Your task to perform on an android device: Go to Wikipedia Image 0: 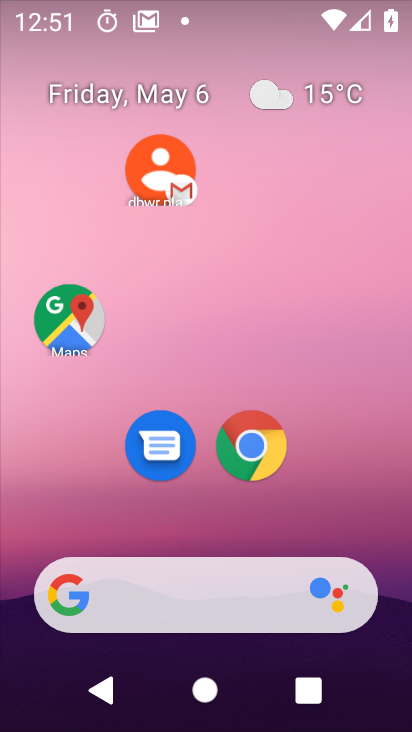
Step 0: drag from (289, 493) to (101, 120)
Your task to perform on an android device: Go to Wikipedia Image 1: 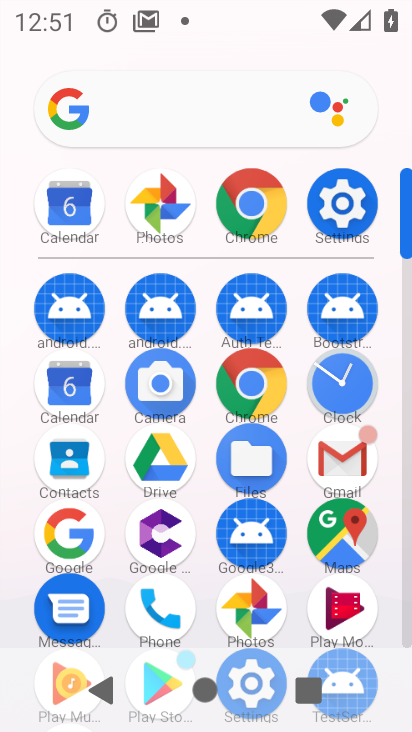
Step 1: click (252, 185)
Your task to perform on an android device: Go to Wikipedia Image 2: 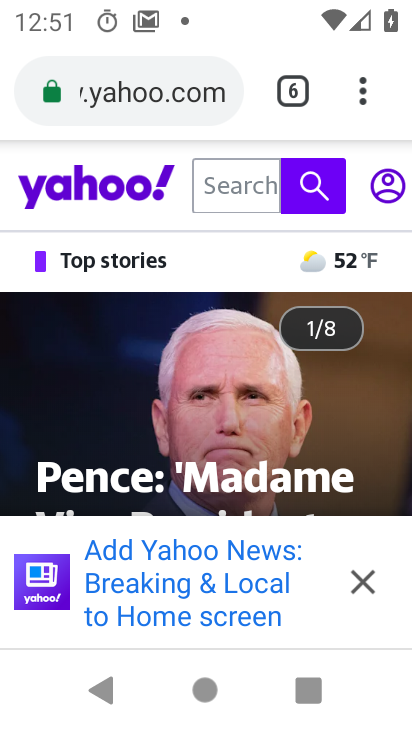
Step 2: click (360, 84)
Your task to perform on an android device: Go to Wikipedia Image 3: 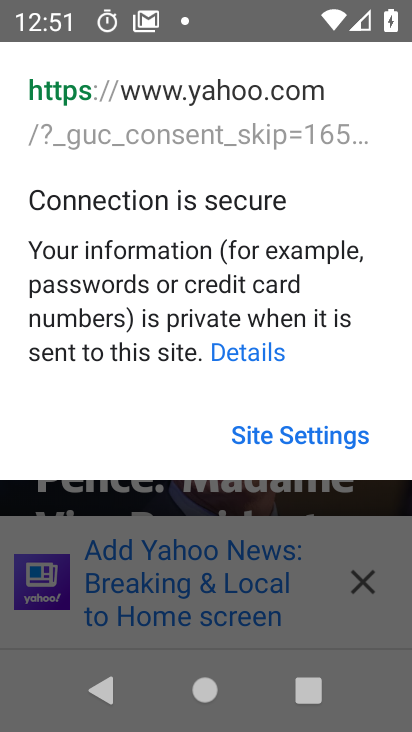
Step 3: click (361, 83)
Your task to perform on an android device: Go to Wikipedia Image 4: 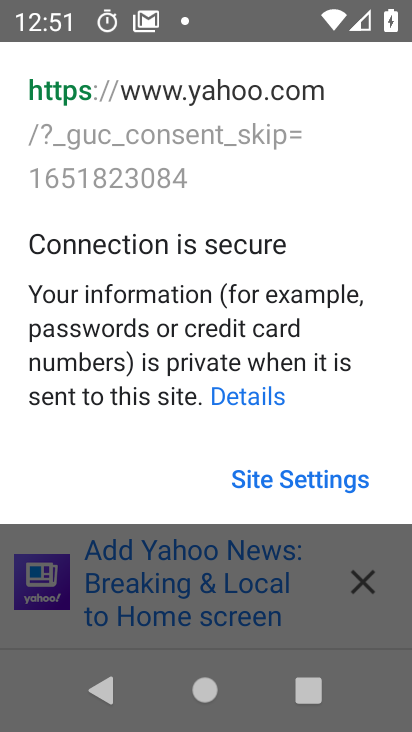
Step 4: click (298, 467)
Your task to perform on an android device: Go to Wikipedia Image 5: 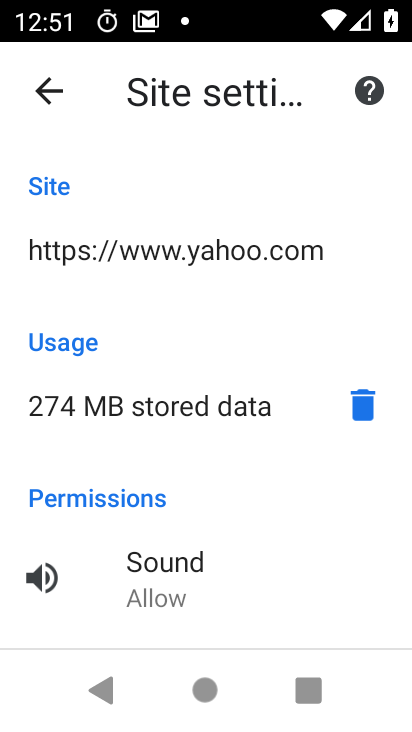
Step 5: click (54, 82)
Your task to perform on an android device: Go to Wikipedia Image 6: 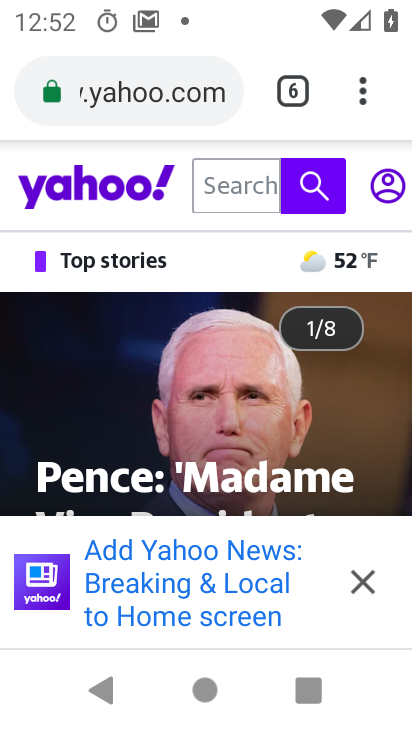
Step 6: drag from (367, 92) to (112, 190)
Your task to perform on an android device: Go to Wikipedia Image 7: 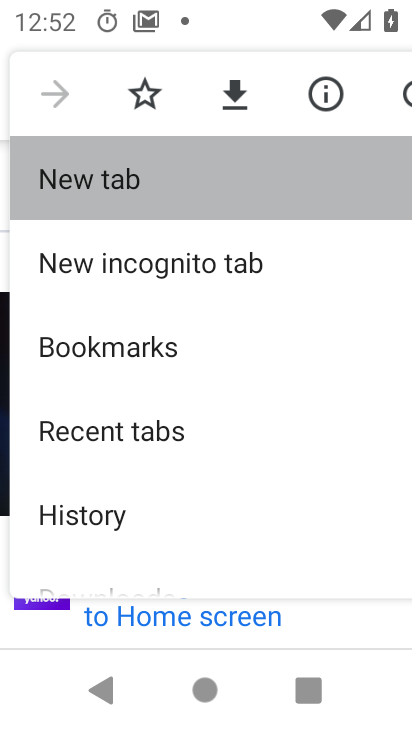
Step 7: click (112, 190)
Your task to perform on an android device: Go to Wikipedia Image 8: 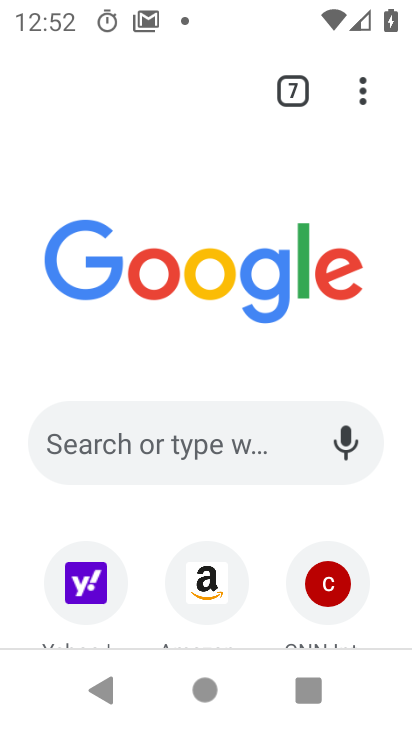
Step 8: drag from (252, 587) to (133, 81)
Your task to perform on an android device: Go to Wikipedia Image 9: 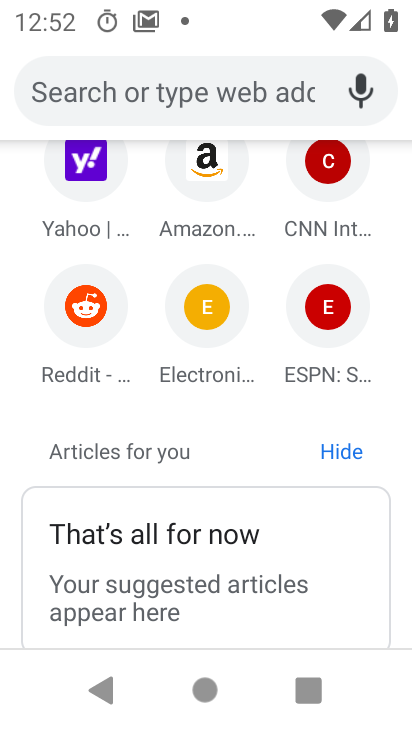
Step 9: drag from (224, 501) to (192, 31)
Your task to perform on an android device: Go to Wikipedia Image 10: 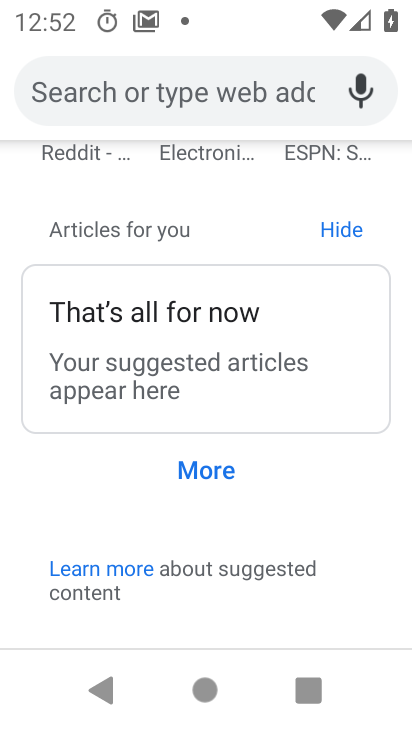
Step 10: drag from (185, 230) to (225, 443)
Your task to perform on an android device: Go to Wikipedia Image 11: 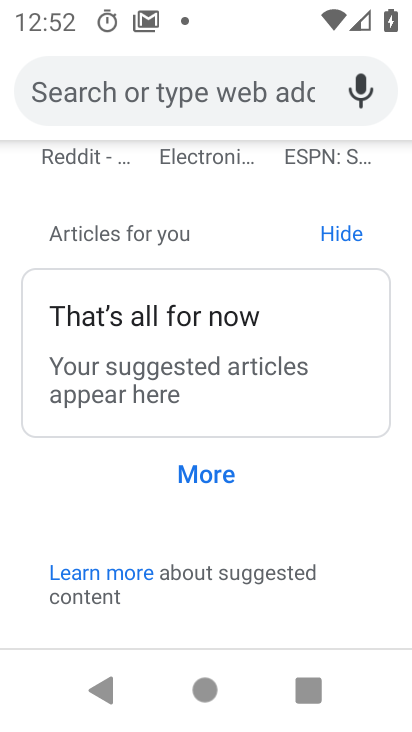
Step 11: drag from (220, 414) to (243, 491)
Your task to perform on an android device: Go to Wikipedia Image 12: 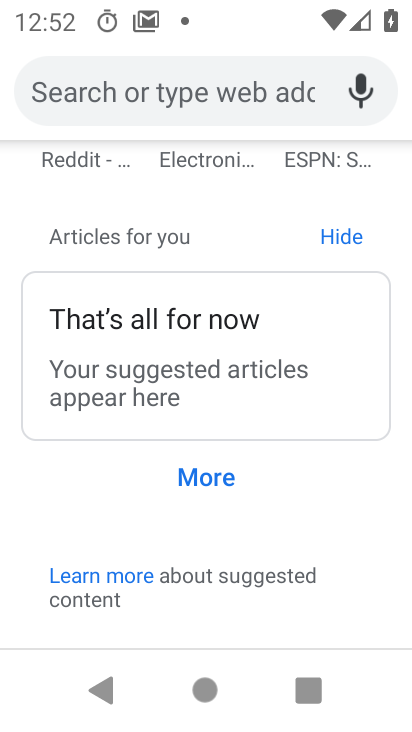
Step 12: drag from (197, 269) to (319, 524)
Your task to perform on an android device: Go to Wikipedia Image 13: 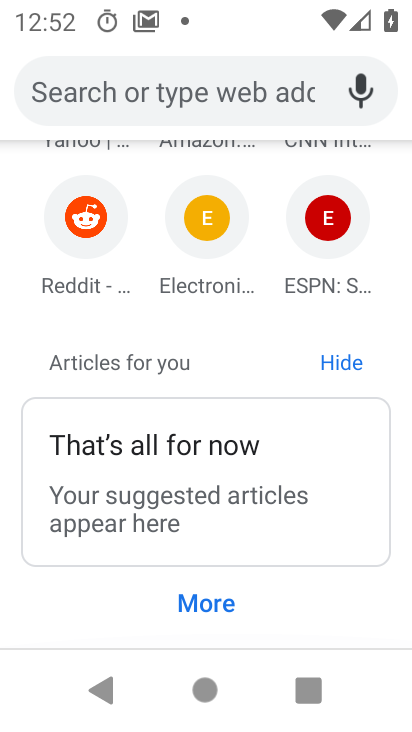
Step 13: drag from (246, 256) to (228, 557)
Your task to perform on an android device: Go to Wikipedia Image 14: 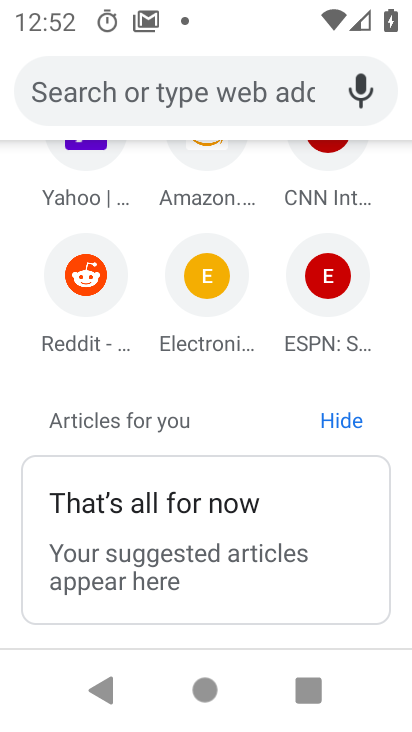
Step 14: drag from (141, 243) to (189, 538)
Your task to perform on an android device: Go to Wikipedia Image 15: 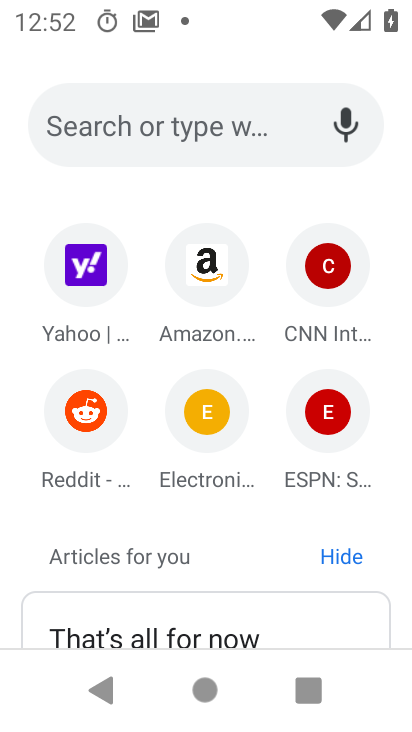
Step 15: click (141, 128)
Your task to perform on an android device: Go to Wikipedia Image 16: 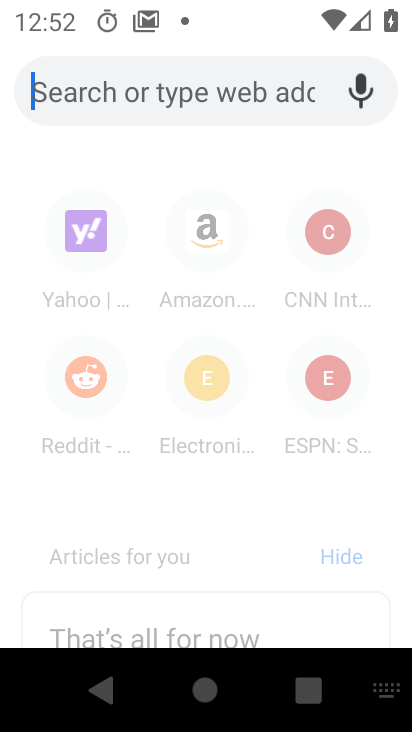
Step 16: type "wikipidia"
Your task to perform on an android device: Go to Wikipedia Image 17: 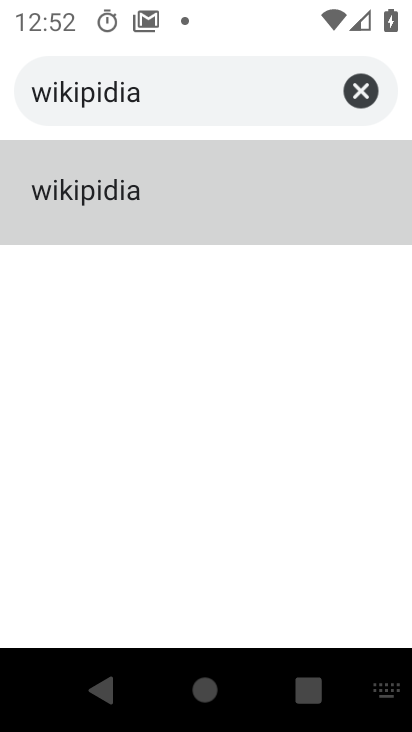
Step 17: click (162, 195)
Your task to perform on an android device: Go to Wikipedia Image 18: 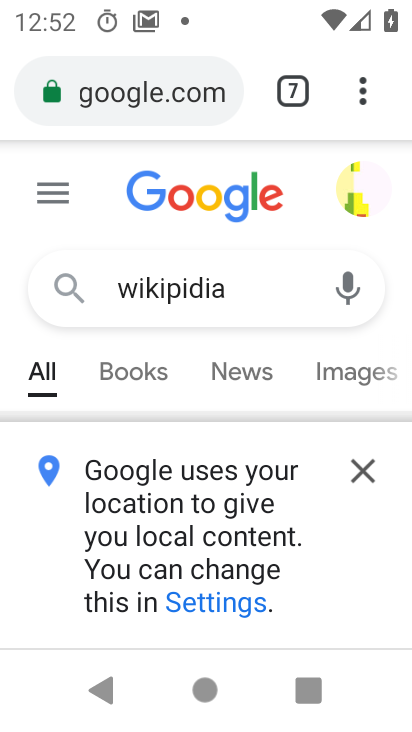
Step 18: drag from (237, 304) to (154, 19)
Your task to perform on an android device: Go to Wikipedia Image 19: 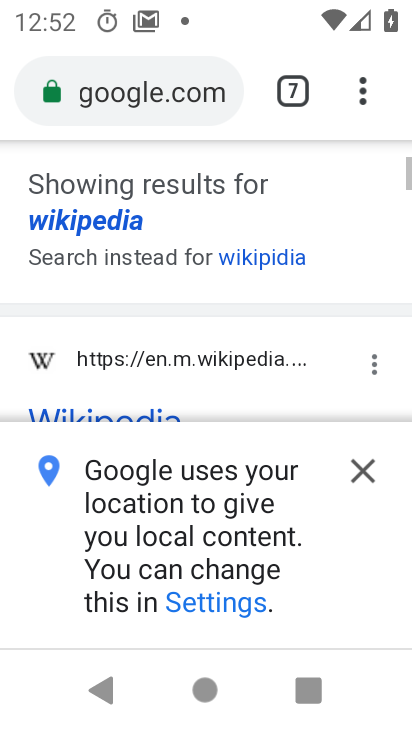
Step 19: drag from (260, 365) to (204, 109)
Your task to perform on an android device: Go to Wikipedia Image 20: 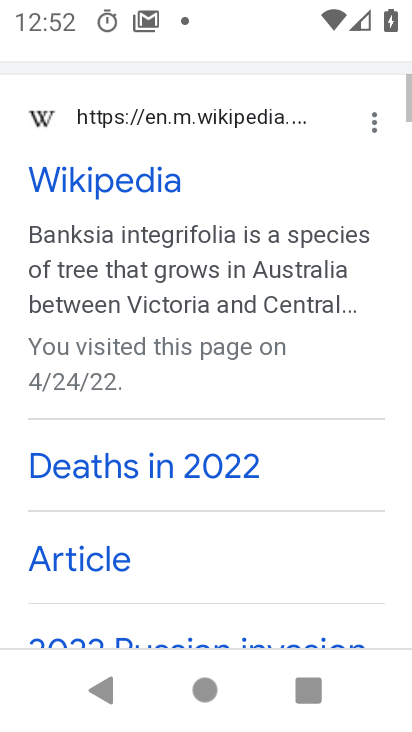
Step 20: drag from (207, 365) to (182, 159)
Your task to perform on an android device: Go to Wikipedia Image 21: 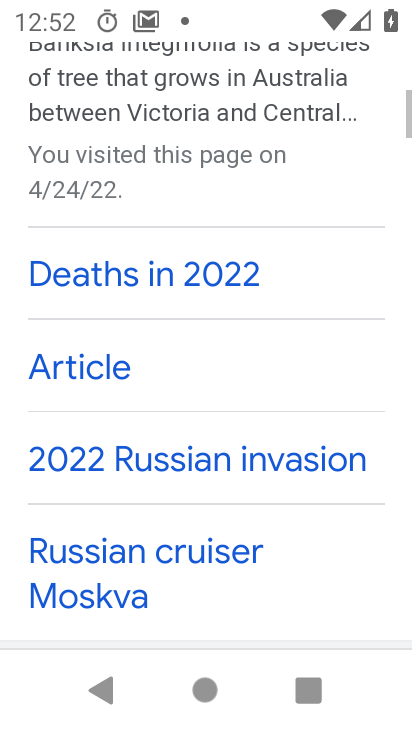
Step 21: drag from (203, 275) to (209, 178)
Your task to perform on an android device: Go to Wikipedia Image 22: 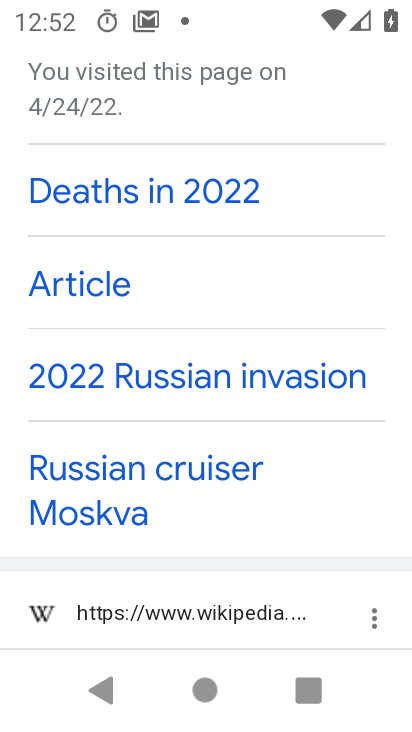
Step 22: press home button
Your task to perform on an android device: Go to Wikipedia Image 23: 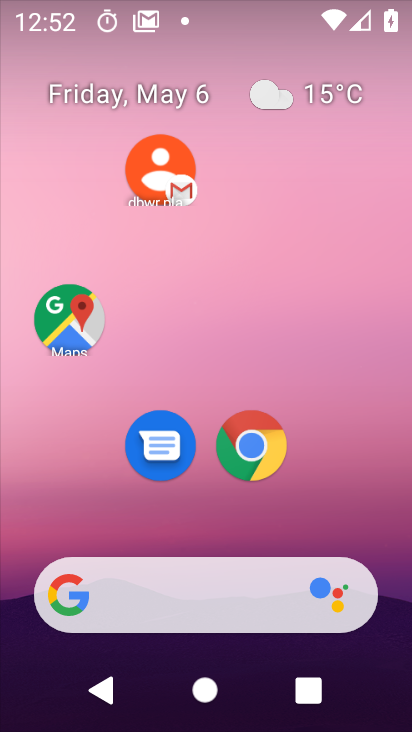
Step 23: drag from (349, 511) to (136, 27)
Your task to perform on an android device: Go to Wikipedia Image 24: 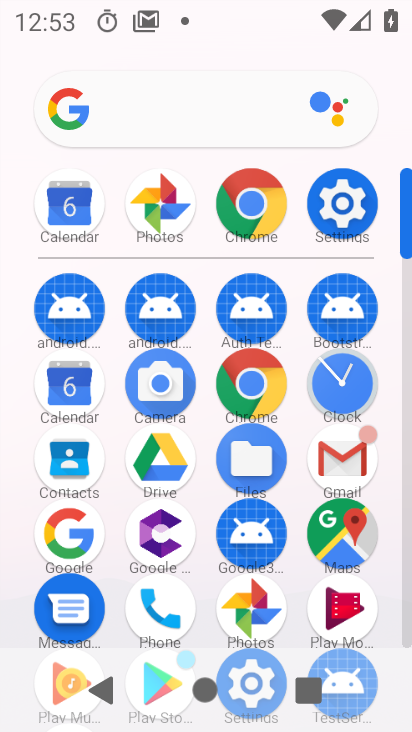
Step 24: click (245, 195)
Your task to perform on an android device: Go to Wikipedia Image 25: 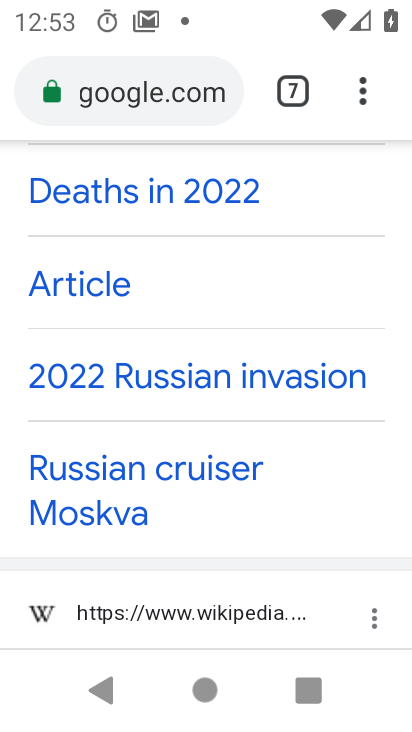
Step 25: click (365, 87)
Your task to perform on an android device: Go to Wikipedia Image 26: 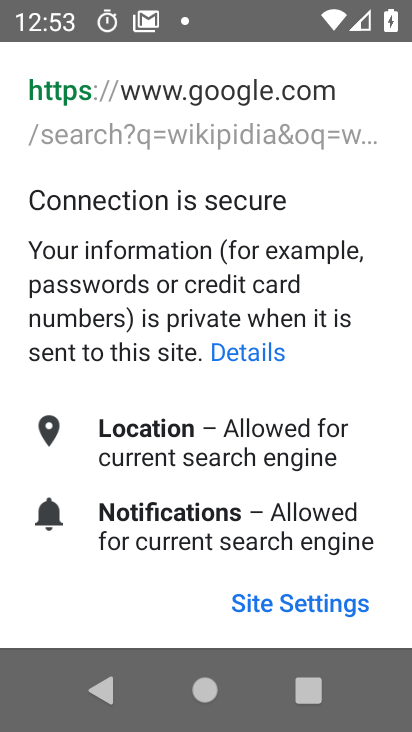
Step 26: click (322, 600)
Your task to perform on an android device: Go to Wikipedia Image 27: 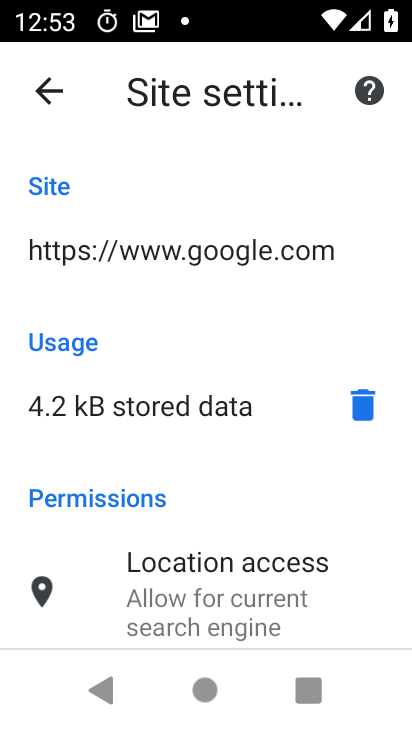
Step 27: click (40, 97)
Your task to perform on an android device: Go to Wikipedia Image 28: 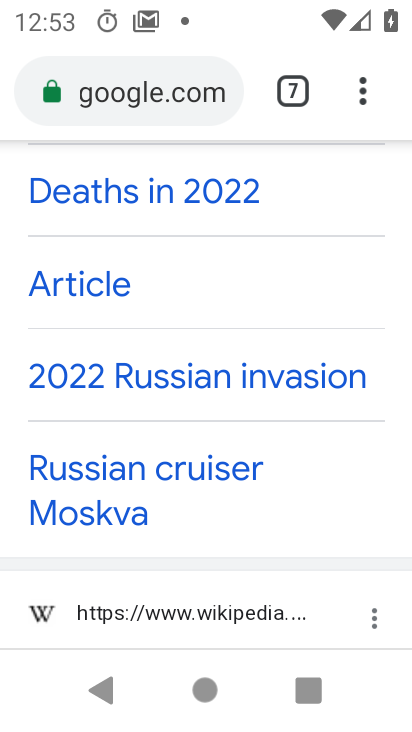
Step 28: drag from (360, 91) to (76, 185)
Your task to perform on an android device: Go to Wikipedia Image 29: 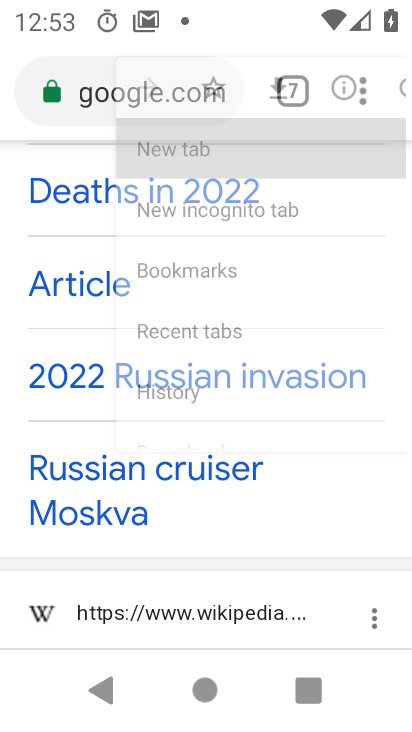
Step 29: click (77, 185)
Your task to perform on an android device: Go to Wikipedia Image 30: 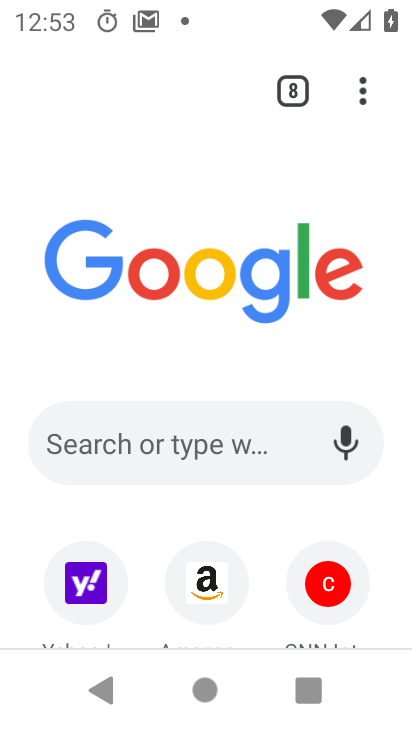
Step 30: drag from (283, 569) to (263, 284)
Your task to perform on an android device: Go to Wikipedia Image 31: 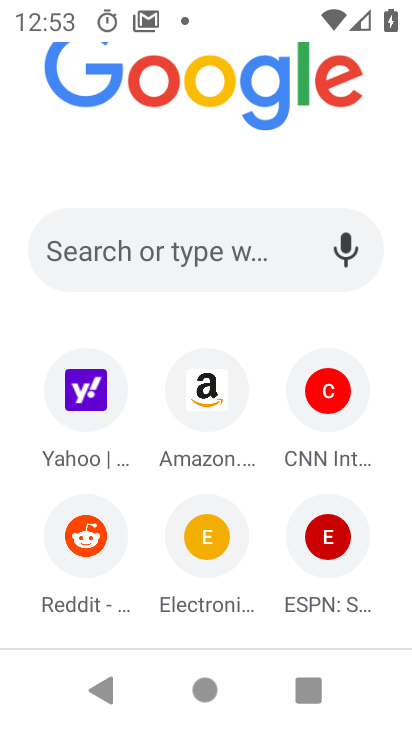
Step 31: drag from (277, 500) to (230, 188)
Your task to perform on an android device: Go to Wikipedia Image 32: 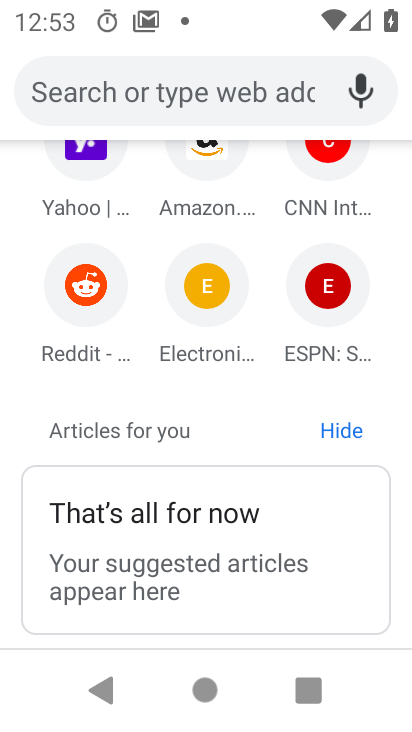
Step 32: drag from (205, 487) to (164, 166)
Your task to perform on an android device: Go to Wikipedia Image 33: 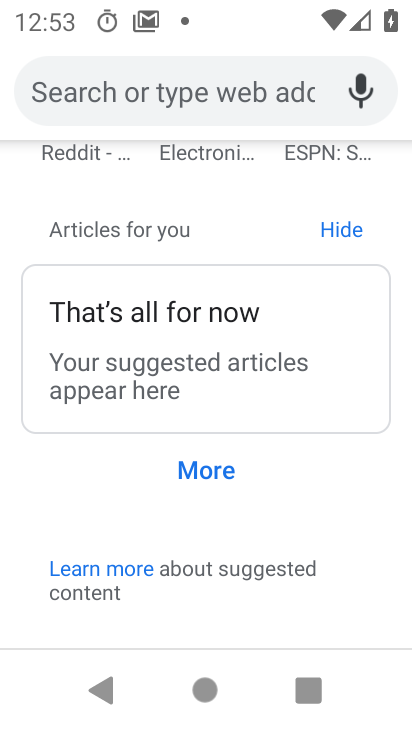
Step 33: drag from (177, 237) to (187, 521)
Your task to perform on an android device: Go to Wikipedia Image 34: 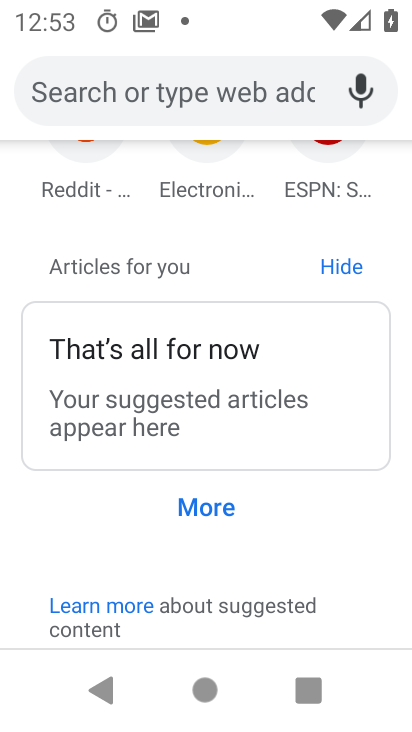
Step 34: drag from (183, 313) to (204, 595)
Your task to perform on an android device: Go to Wikipedia Image 35: 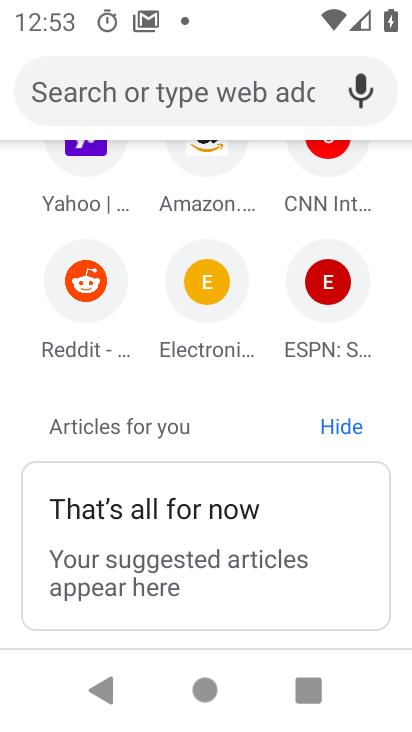
Step 35: drag from (167, 322) to (182, 603)
Your task to perform on an android device: Go to Wikipedia Image 36: 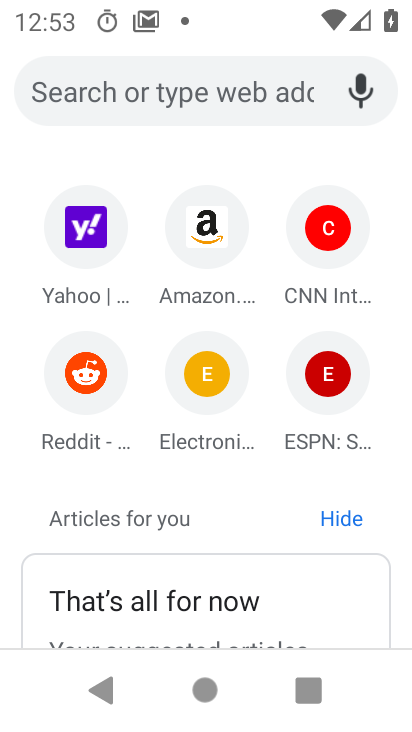
Step 36: drag from (189, 385) to (260, 637)
Your task to perform on an android device: Go to Wikipedia Image 37: 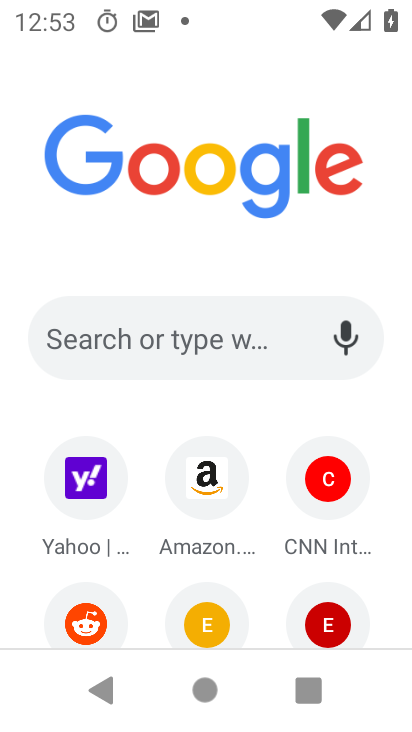
Step 37: drag from (233, 311) to (263, 699)
Your task to perform on an android device: Go to Wikipedia Image 38: 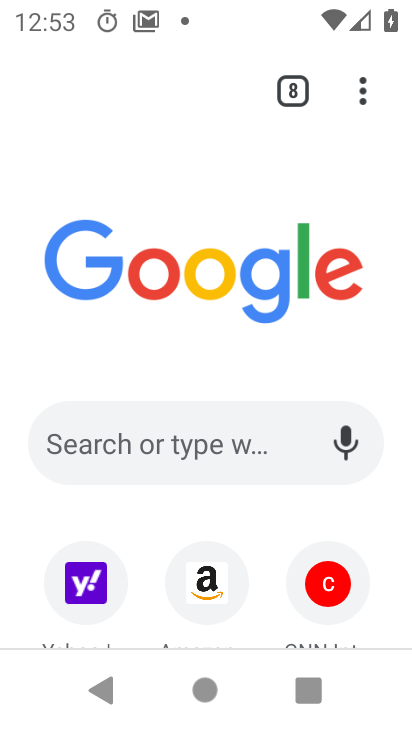
Step 38: click (103, 311)
Your task to perform on an android device: Go to Wikipedia Image 39: 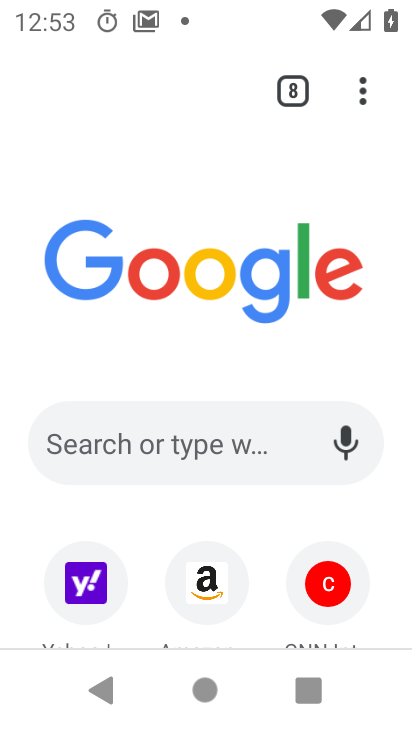
Step 39: click (99, 436)
Your task to perform on an android device: Go to Wikipedia Image 40: 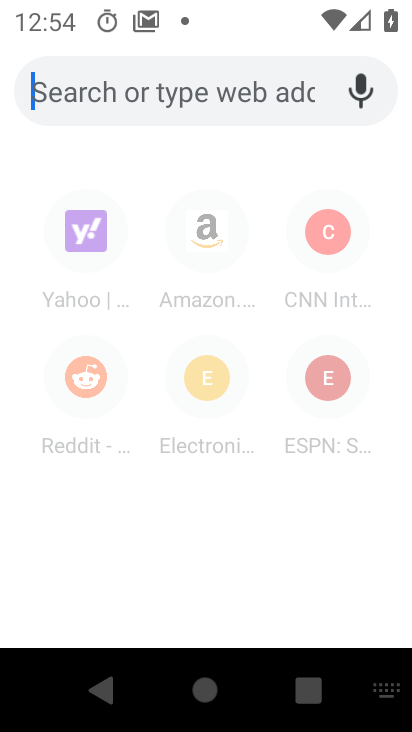
Step 40: type "wikipedia"
Your task to perform on an android device: Go to Wikipedia Image 41: 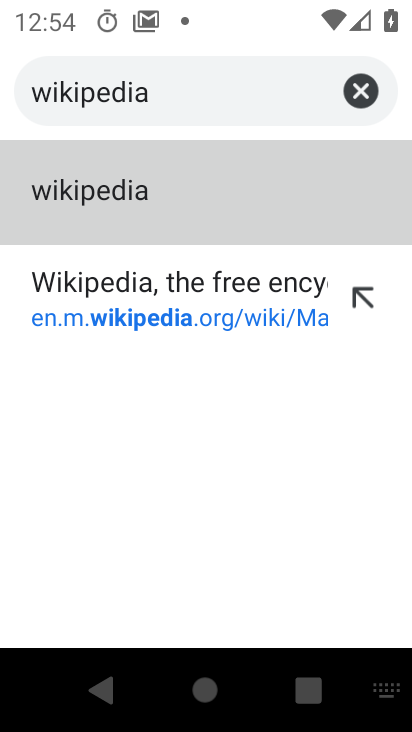
Step 41: click (181, 307)
Your task to perform on an android device: Go to Wikipedia Image 42: 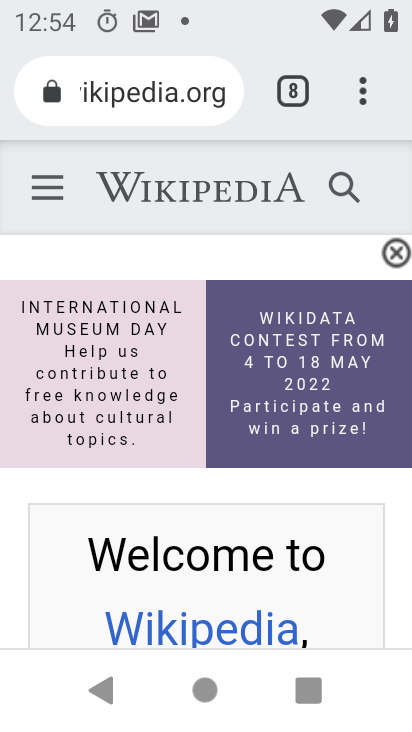
Step 42: click (361, 84)
Your task to perform on an android device: Go to Wikipedia Image 43: 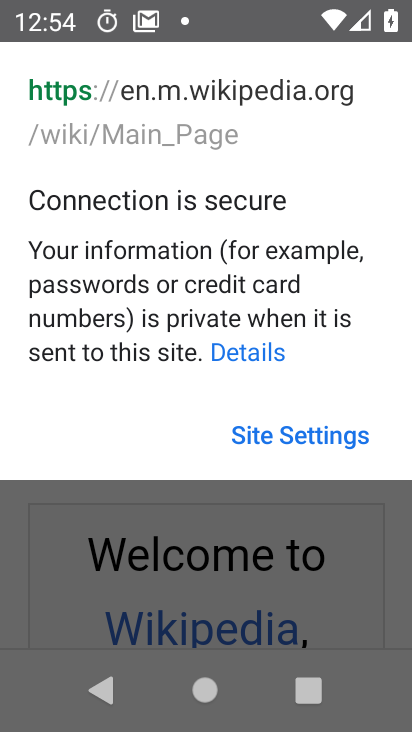
Step 43: click (235, 510)
Your task to perform on an android device: Go to Wikipedia Image 44: 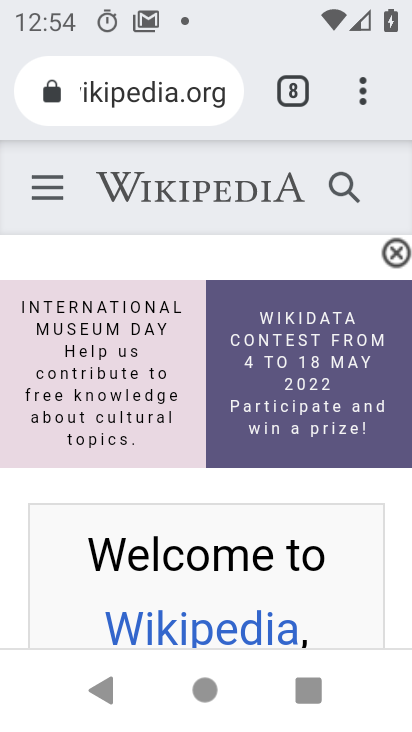
Step 44: drag from (354, 90) to (157, 351)
Your task to perform on an android device: Go to Wikipedia Image 45: 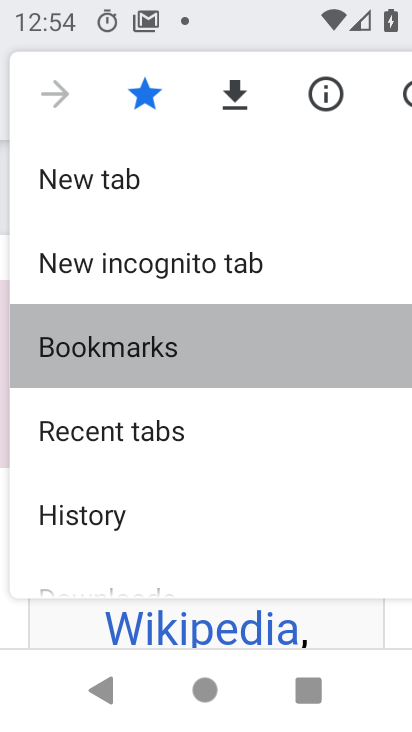
Step 45: click (157, 351)
Your task to perform on an android device: Go to Wikipedia Image 46: 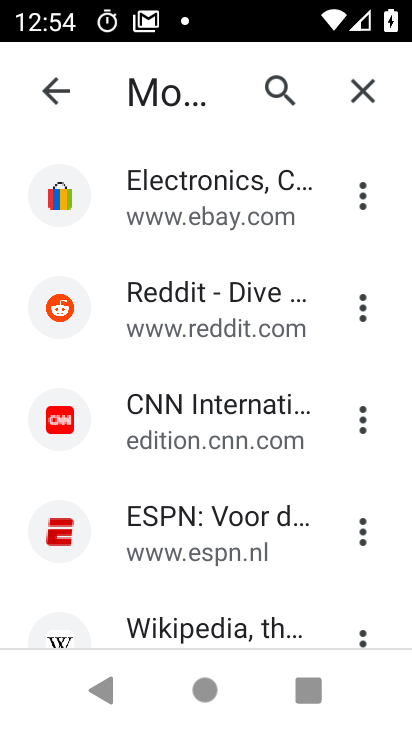
Step 46: click (42, 88)
Your task to perform on an android device: Go to Wikipedia Image 47: 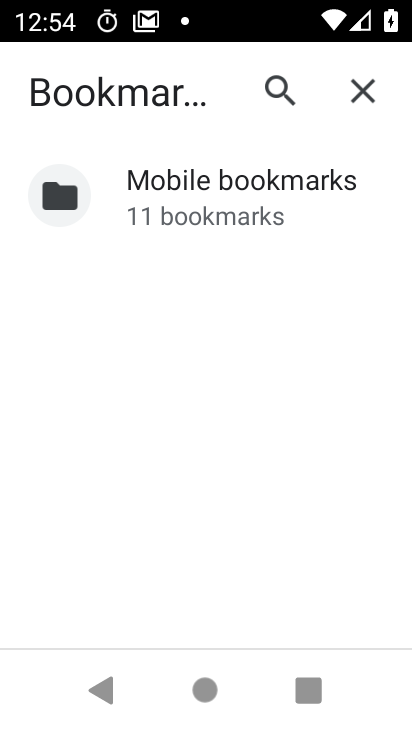
Step 47: task complete